Your task to perform on an android device: turn off location history Image 0: 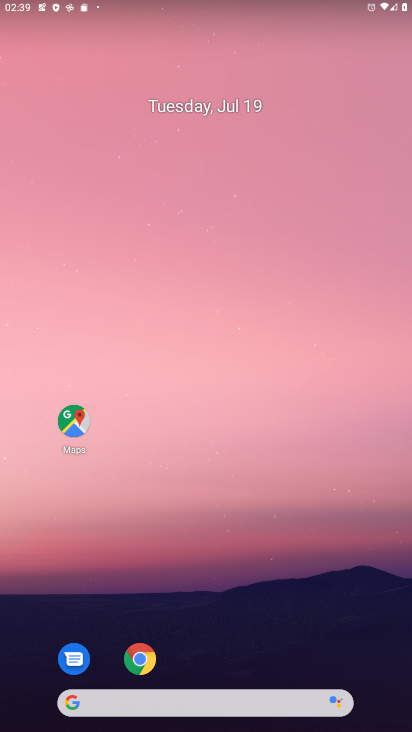
Step 0: press home button
Your task to perform on an android device: turn off location history Image 1: 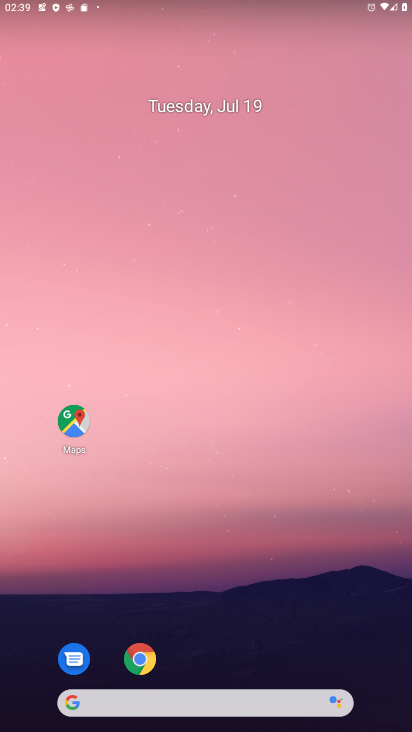
Step 1: drag from (209, 644) to (198, 522)
Your task to perform on an android device: turn off location history Image 2: 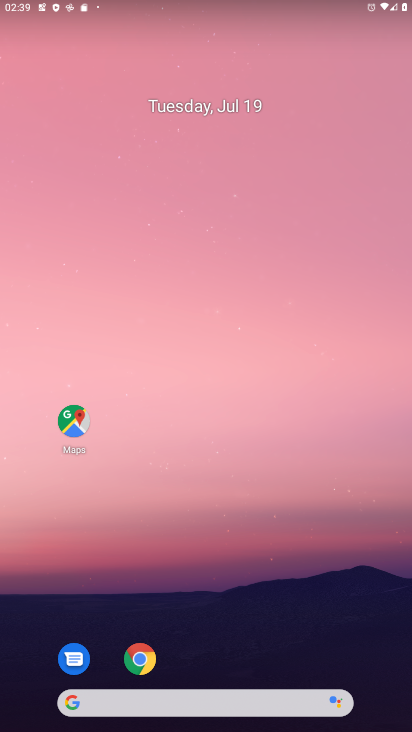
Step 2: click (63, 411)
Your task to perform on an android device: turn off location history Image 3: 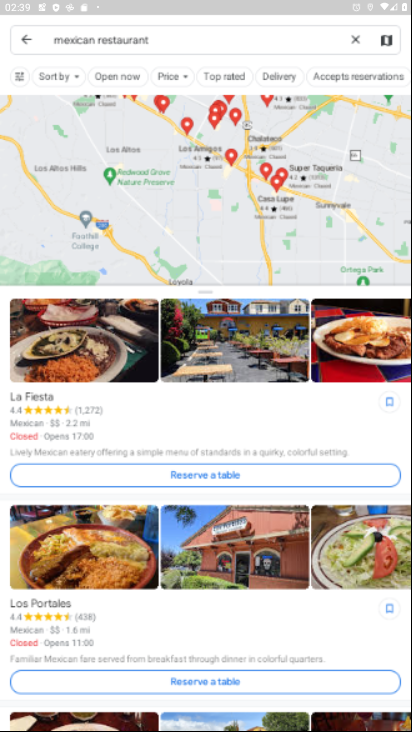
Step 3: click (22, 38)
Your task to perform on an android device: turn off location history Image 4: 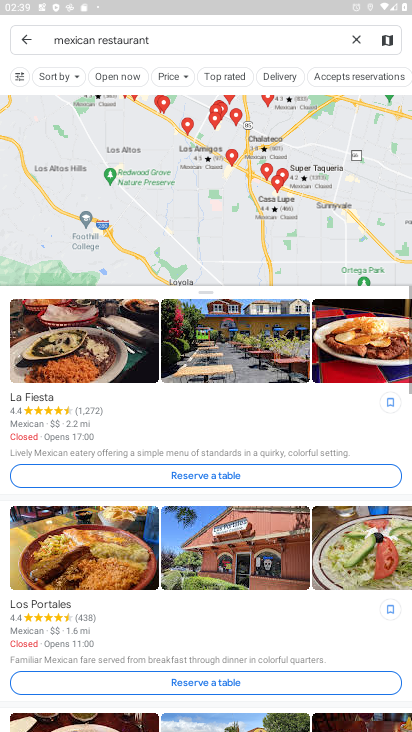
Step 4: click (22, 38)
Your task to perform on an android device: turn off location history Image 5: 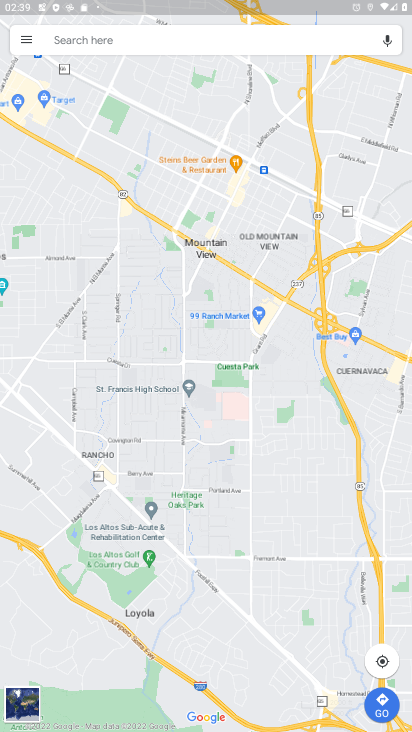
Step 5: click (22, 38)
Your task to perform on an android device: turn off location history Image 6: 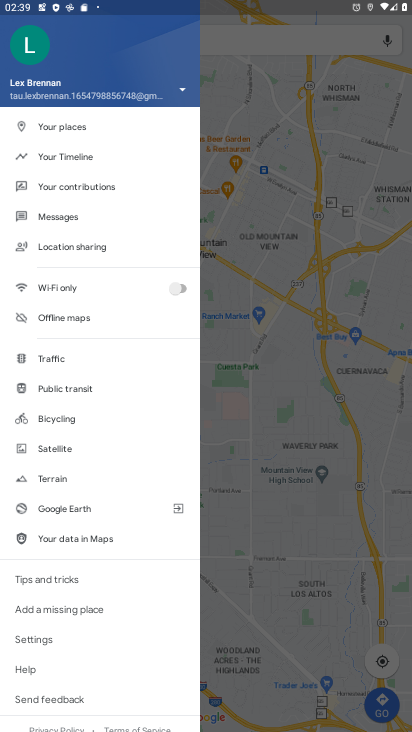
Step 6: click (67, 163)
Your task to perform on an android device: turn off location history Image 7: 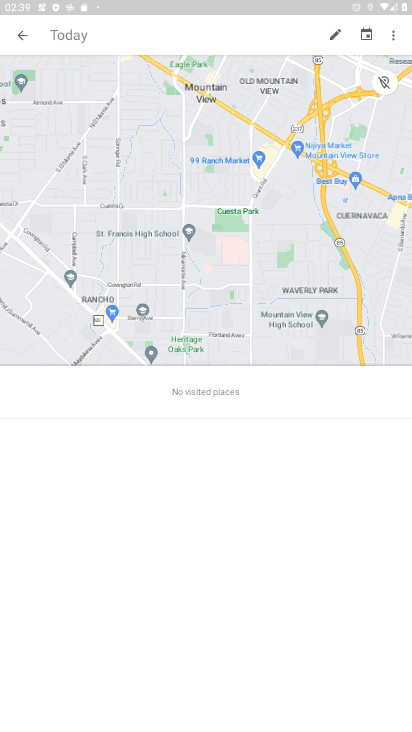
Step 7: click (396, 39)
Your task to perform on an android device: turn off location history Image 8: 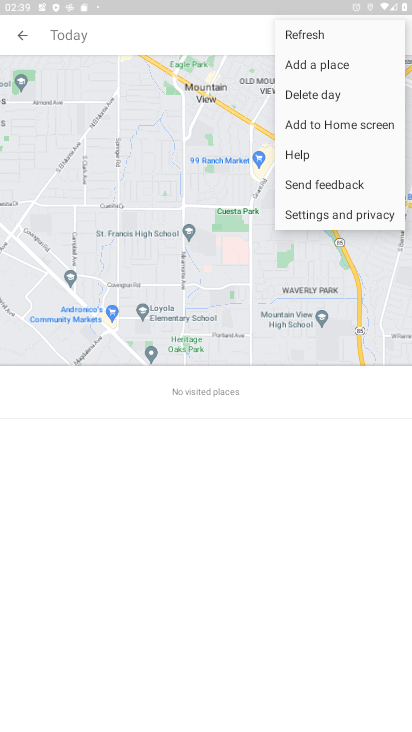
Step 8: click (347, 229)
Your task to perform on an android device: turn off location history Image 9: 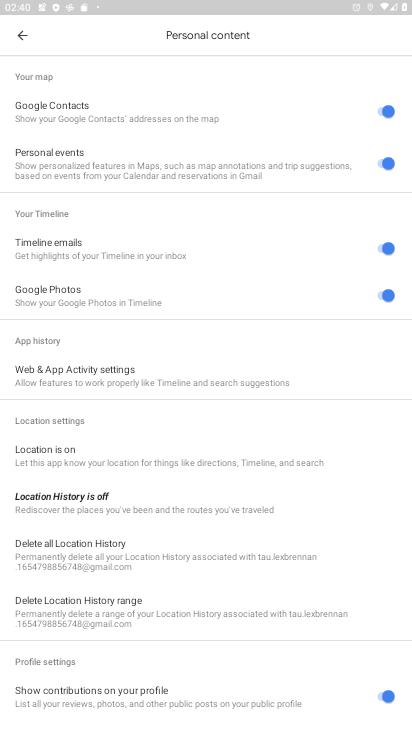
Step 9: click (119, 488)
Your task to perform on an android device: turn off location history Image 10: 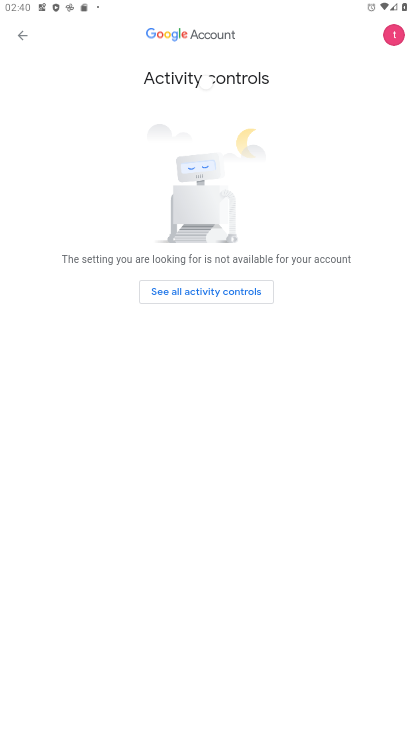
Step 10: click (216, 292)
Your task to perform on an android device: turn off location history Image 11: 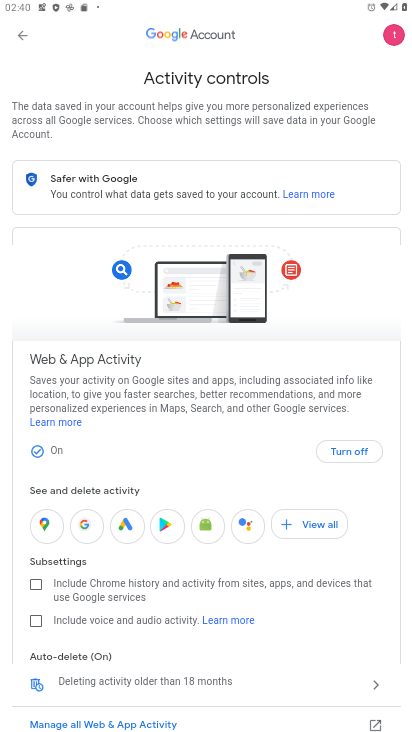
Step 11: click (362, 443)
Your task to perform on an android device: turn off location history Image 12: 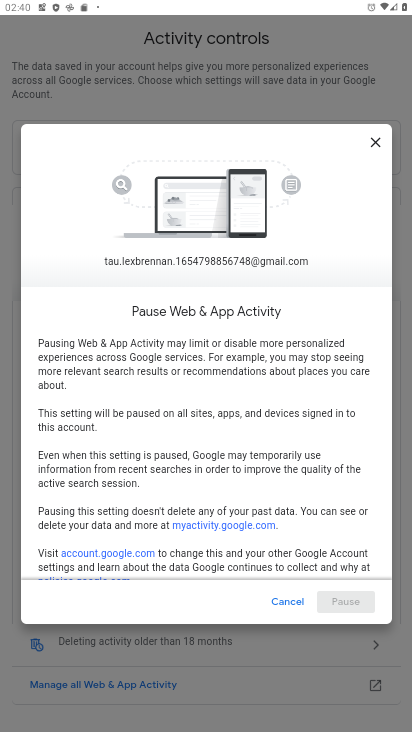
Step 12: drag from (306, 511) to (283, 176)
Your task to perform on an android device: turn off location history Image 13: 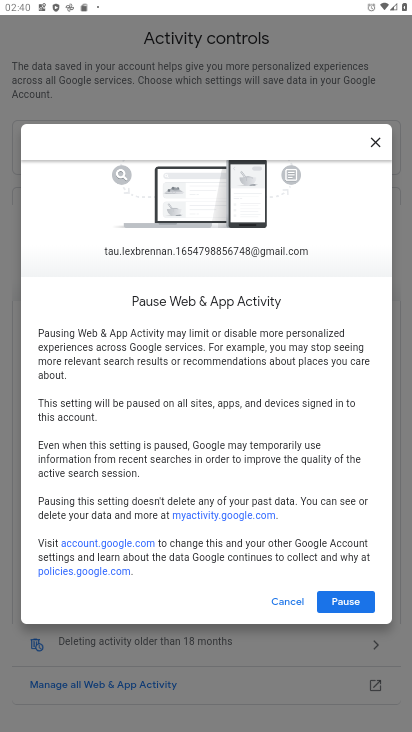
Step 13: click (333, 597)
Your task to perform on an android device: turn off location history Image 14: 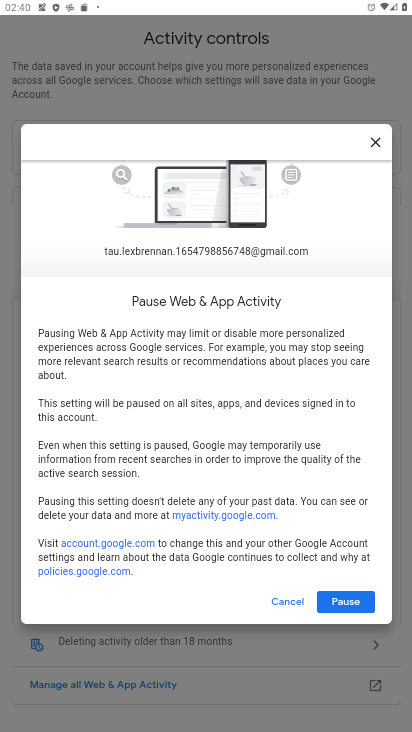
Step 14: click (333, 597)
Your task to perform on an android device: turn off location history Image 15: 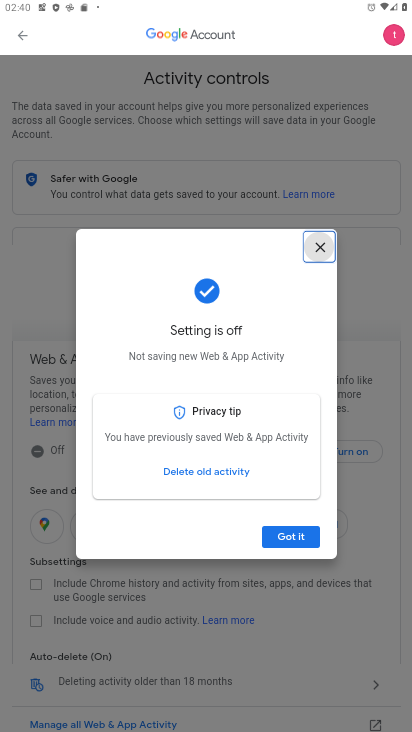
Step 15: click (279, 542)
Your task to perform on an android device: turn off location history Image 16: 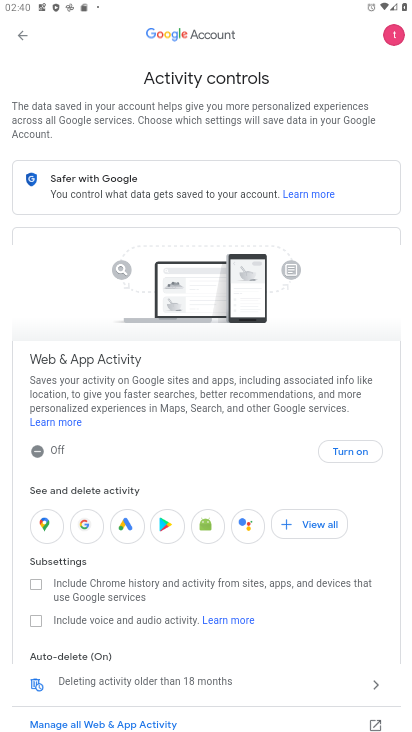
Step 16: task complete